Your task to perform on an android device: manage bookmarks in the chrome app Image 0: 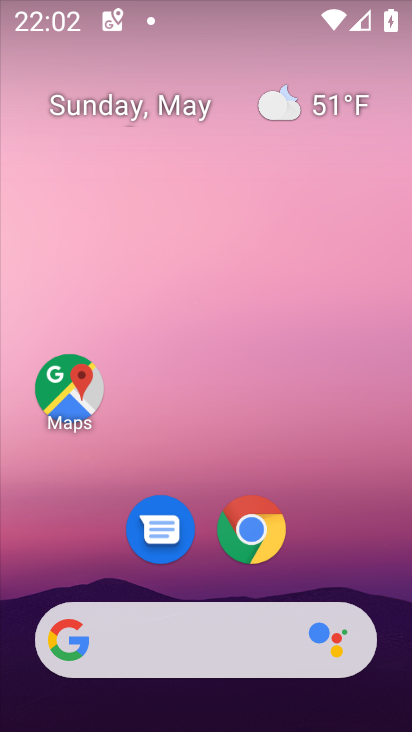
Step 0: drag from (282, 640) to (232, 80)
Your task to perform on an android device: manage bookmarks in the chrome app Image 1: 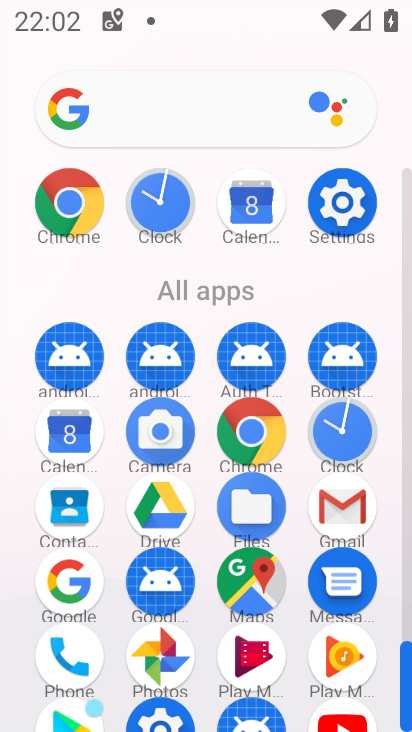
Step 1: click (243, 432)
Your task to perform on an android device: manage bookmarks in the chrome app Image 2: 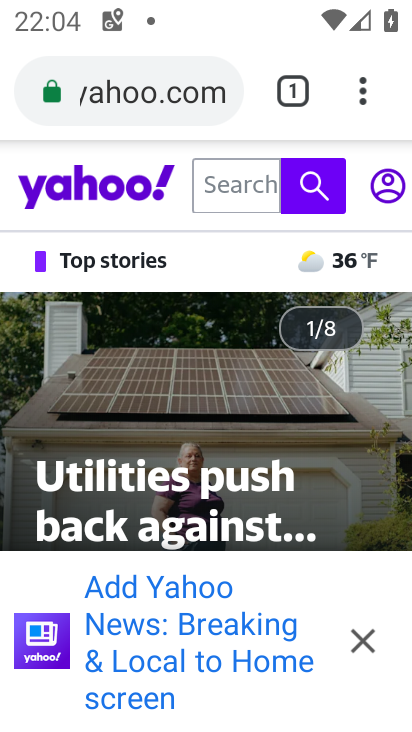
Step 2: task complete